Your task to perform on an android device: turn off notifications settings in the gmail app Image 0: 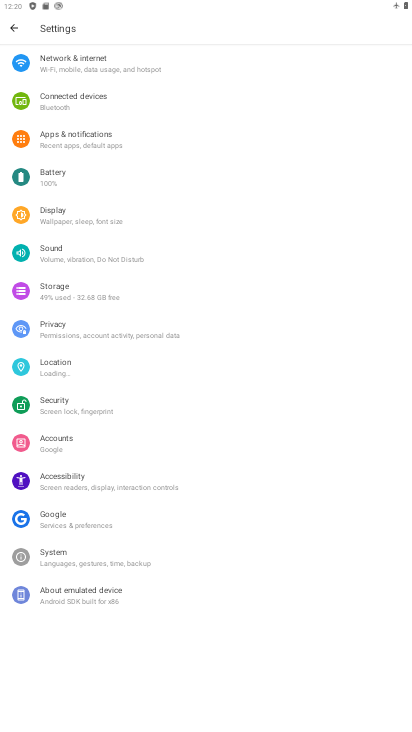
Step 0: click (168, 57)
Your task to perform on an android device: turn off notifications settings in the gmail app Image 1: 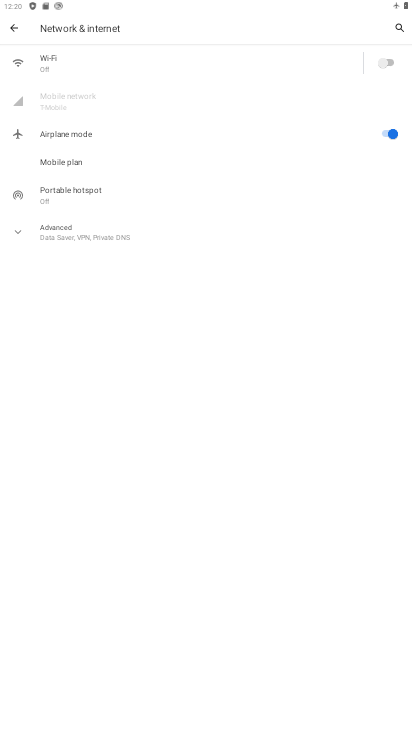
Step 1: click (381, 75)
Your task to perform on an android device: turn off notifications settings in the gmail app Image 2: 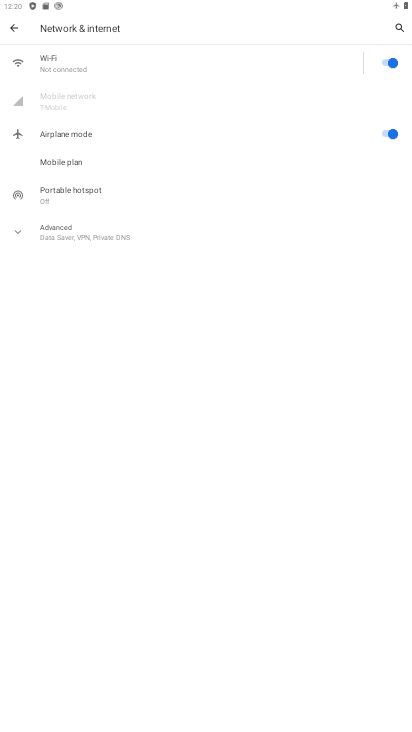
Step 2: click (14, 32)
Your task to perform on an android device: turn off notifications settings in the gmail app Image 3: 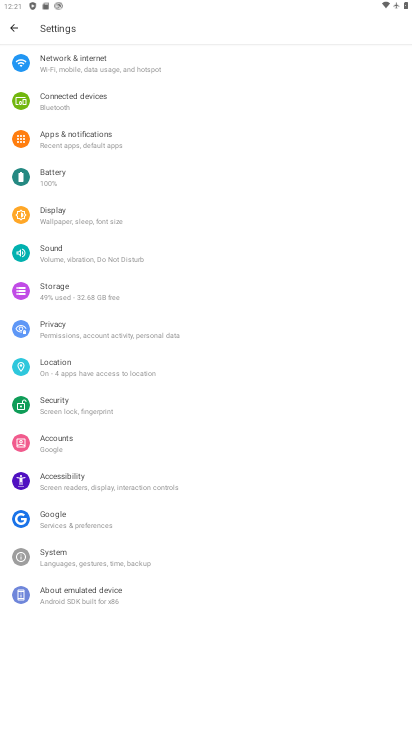
Step 3: click (84, 154)
Your task to perform on an android device: turn off notifications settings in the gmail app Image 4: 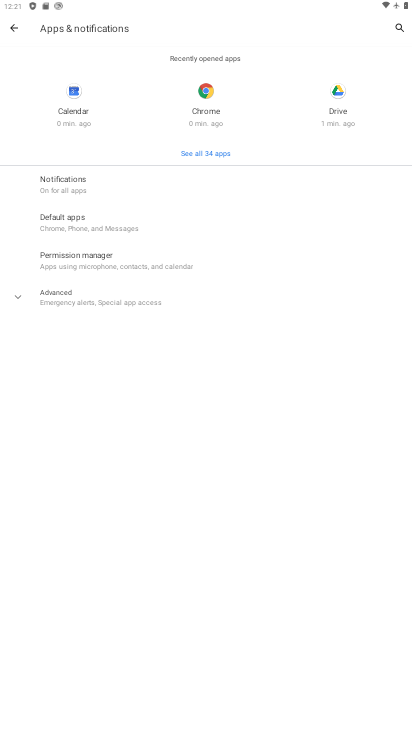
Step 4: task complete